Your task to perform on an android device: turn off data saver in the chrome app Image 0: 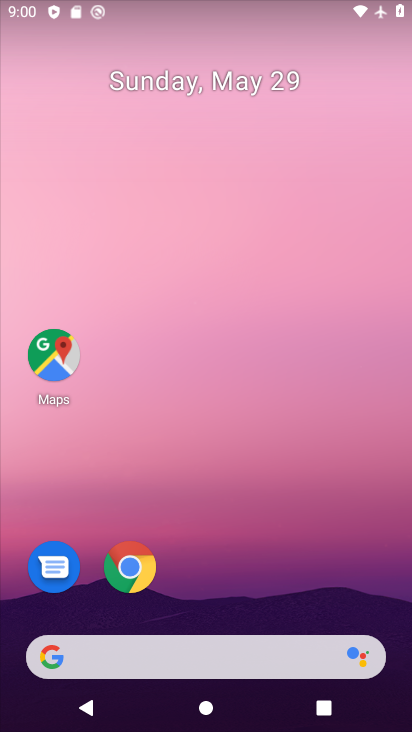
Step 0: click (129, 564)
Your task to perform on an android device: turn off data saver in the chrome app Image 1: 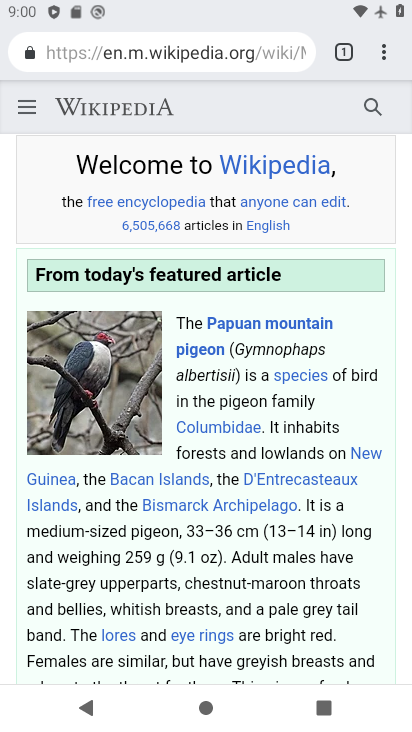
Step 1: click (383, 58)
Your task to perform on an android device: turn off data saver in the chrome app Image 2: 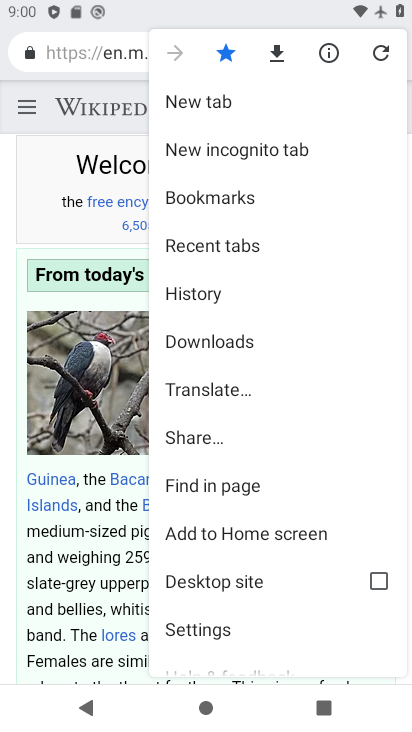
Step 2: drag from (236, 606) to (304, 164)
Your task to perform on an android device: turn off data saver in the chrome app Image 3: 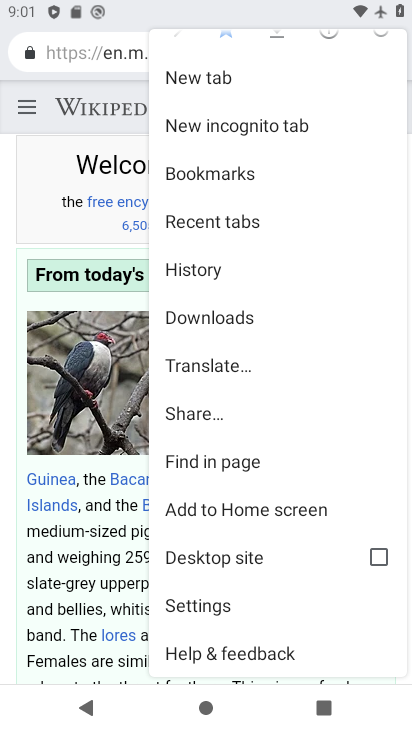
Step 3: click (203, 585)
Your task to perform on an android device: turn off data saver in the chrome app Image 4: 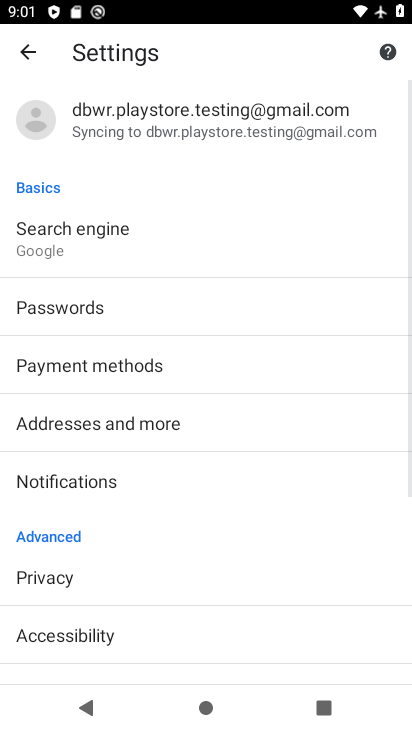
Step 4: drag from (190, 568) to (261, 57)
Your task to perform on an android device: turn off data saver in the chrome app Image 5: 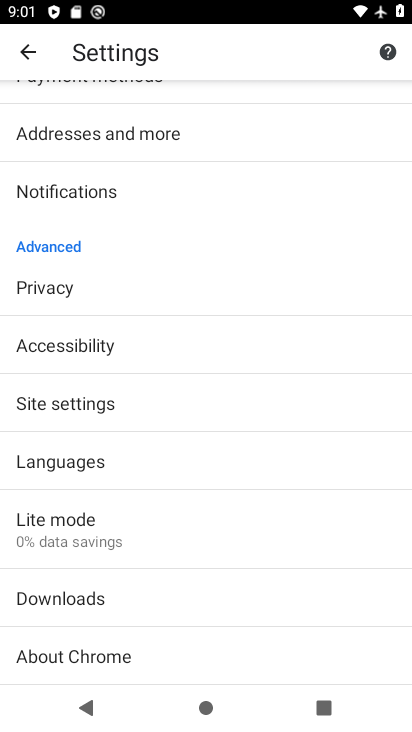
Step 5: click (38, 528)
Your task to perform on an android device: turn off data saver in the chrome app Image 6: 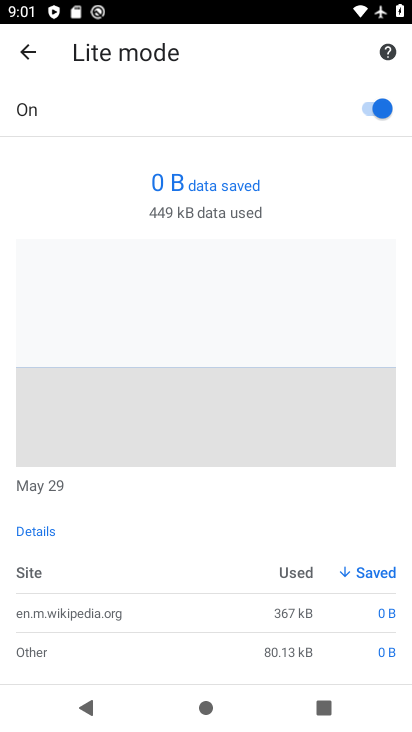
Step 6: click (365, 109)
Your task to perform on an android device: turn off data saver in the chrome app Image 7: 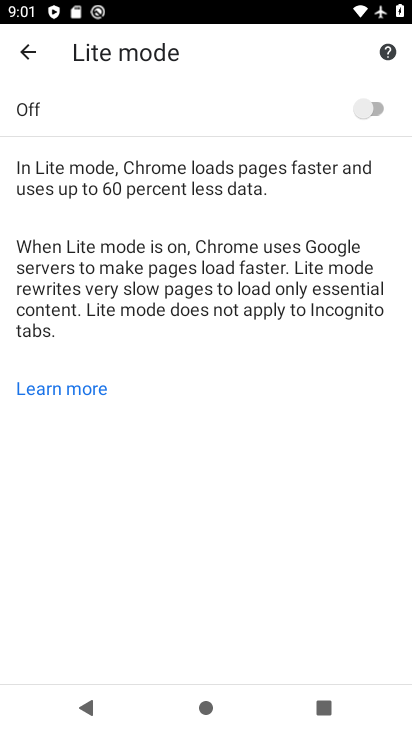
Step 7: task complete